Your task to perform on an android device: open a new tab in the chrome app Image 0: 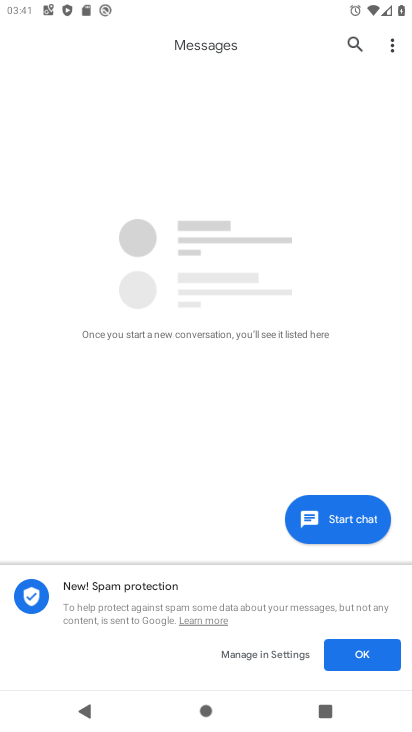
Step 0: press home button
Your task to perform on an android device: open a new tab in the chrome app Image 1: 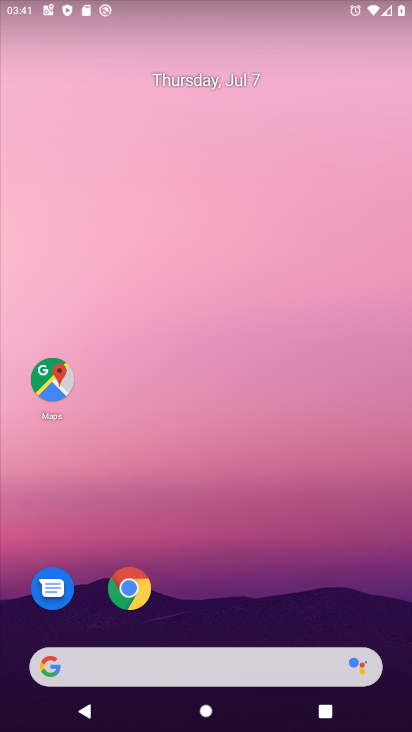
Step 1: click (122, 586)
Your task to perform on an android device: open a new tab in the chrome app Image 2: 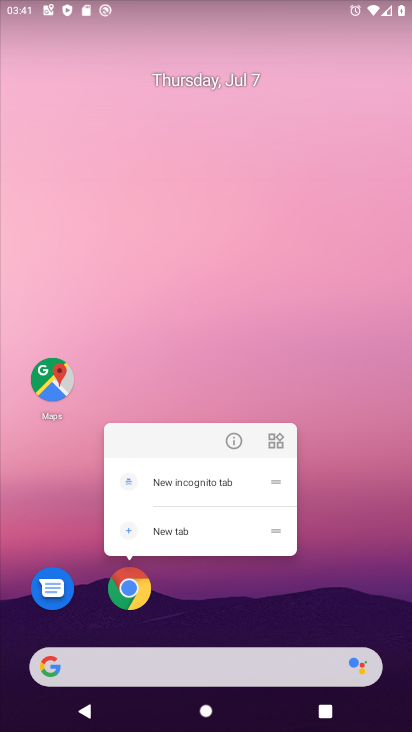
Step 2: click (124, 587)
Your task to perform on an android device: open a new tab in the chrome app Image 3: 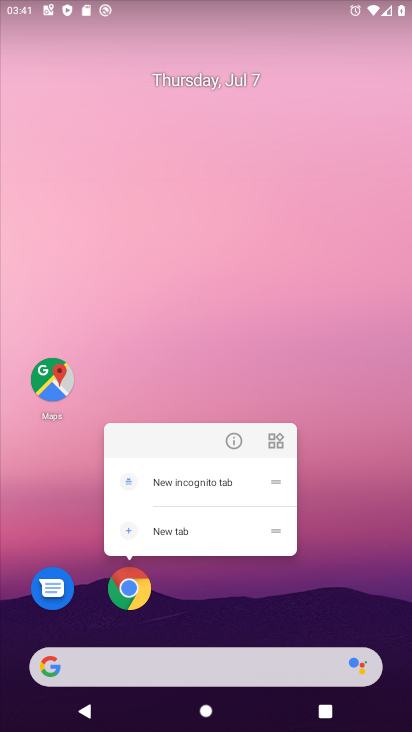
Step 3: click (124, 587)
Your task to perform on an android device: open a new tab in the chrome app Image 4: 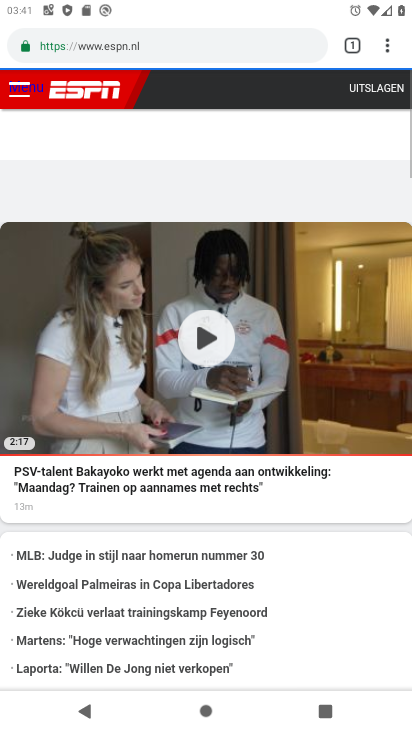
Step 4: click (388, 42)
Your task to perform on an android device: open a new tab in the chrome app Image 5: 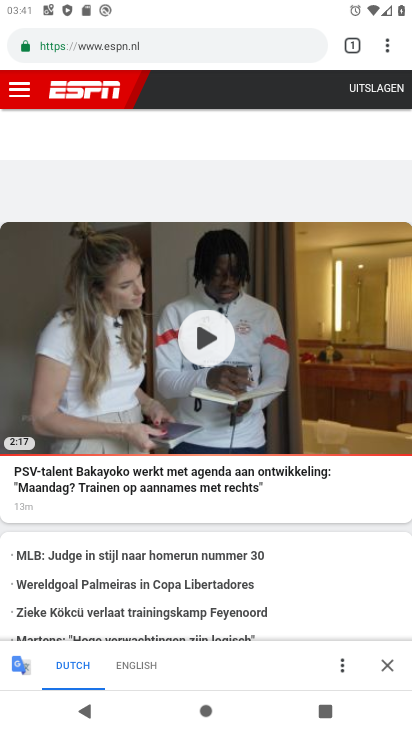
Step 5: click (380, 41)
Your task to perform on an android device: open a new tab in the chrome app Image 6: 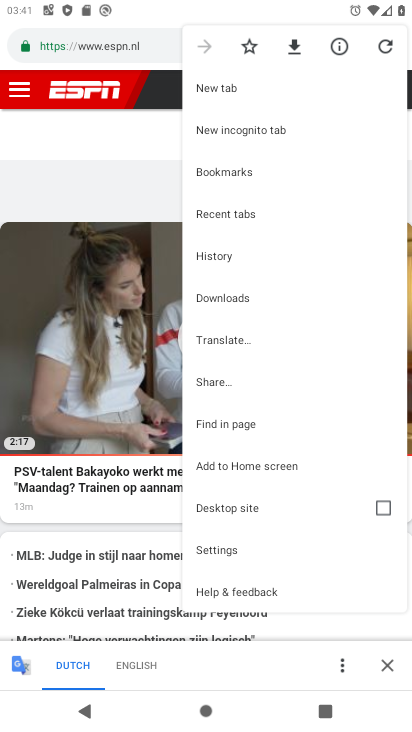
Step 6: click (206, 89)
Your task to perform on an android device: open a new tab in the chrome app Image 7: 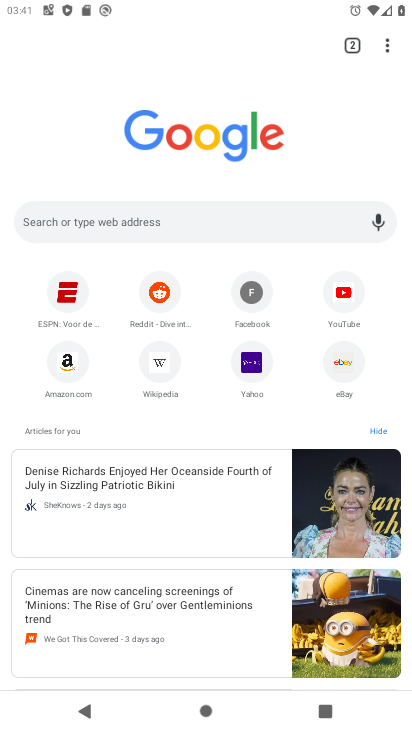
Step 7: task complete